Your task to perform on an android device: Open calendar and show me the first week of next month Image 0: 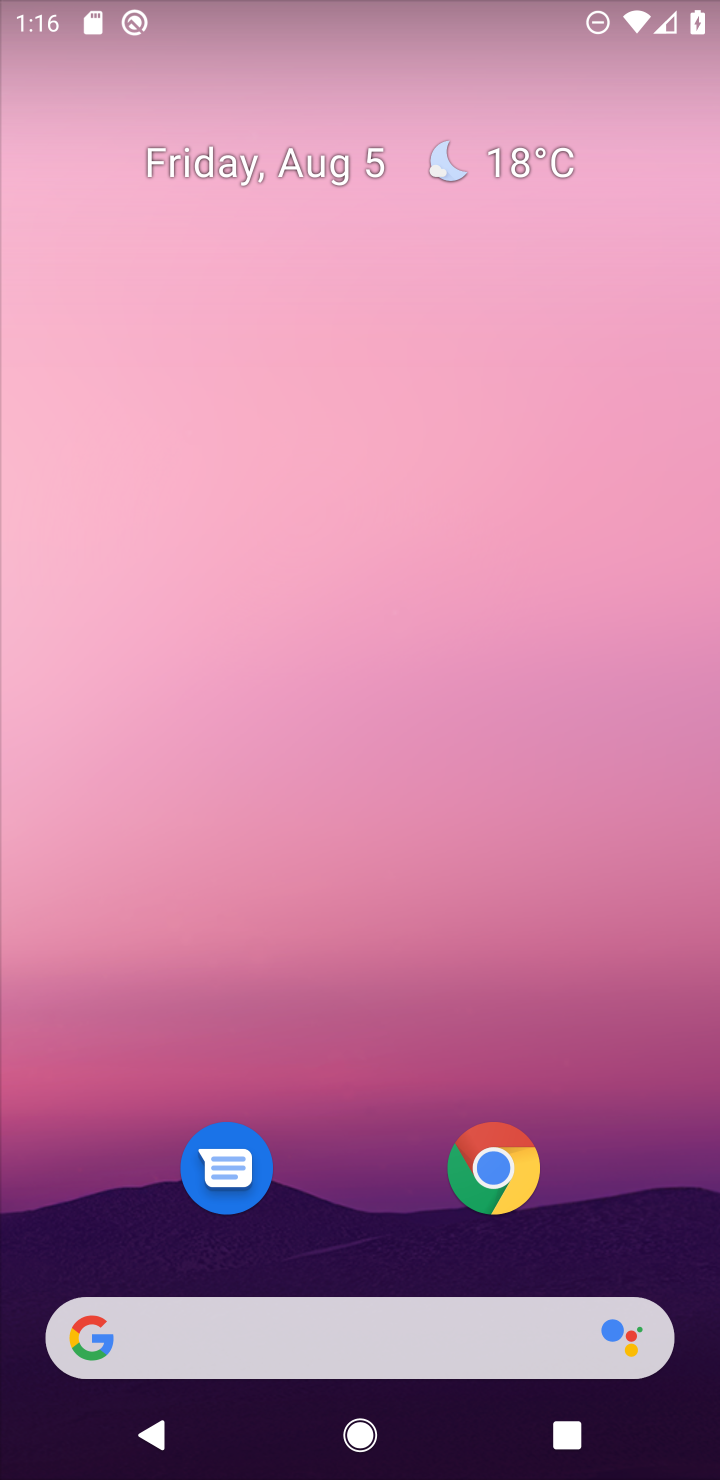
Step 0: drag from (295, 1012) to (343, 208)
Your task to perform on an android device: Open calendar and show me the first week of next month Image 1: 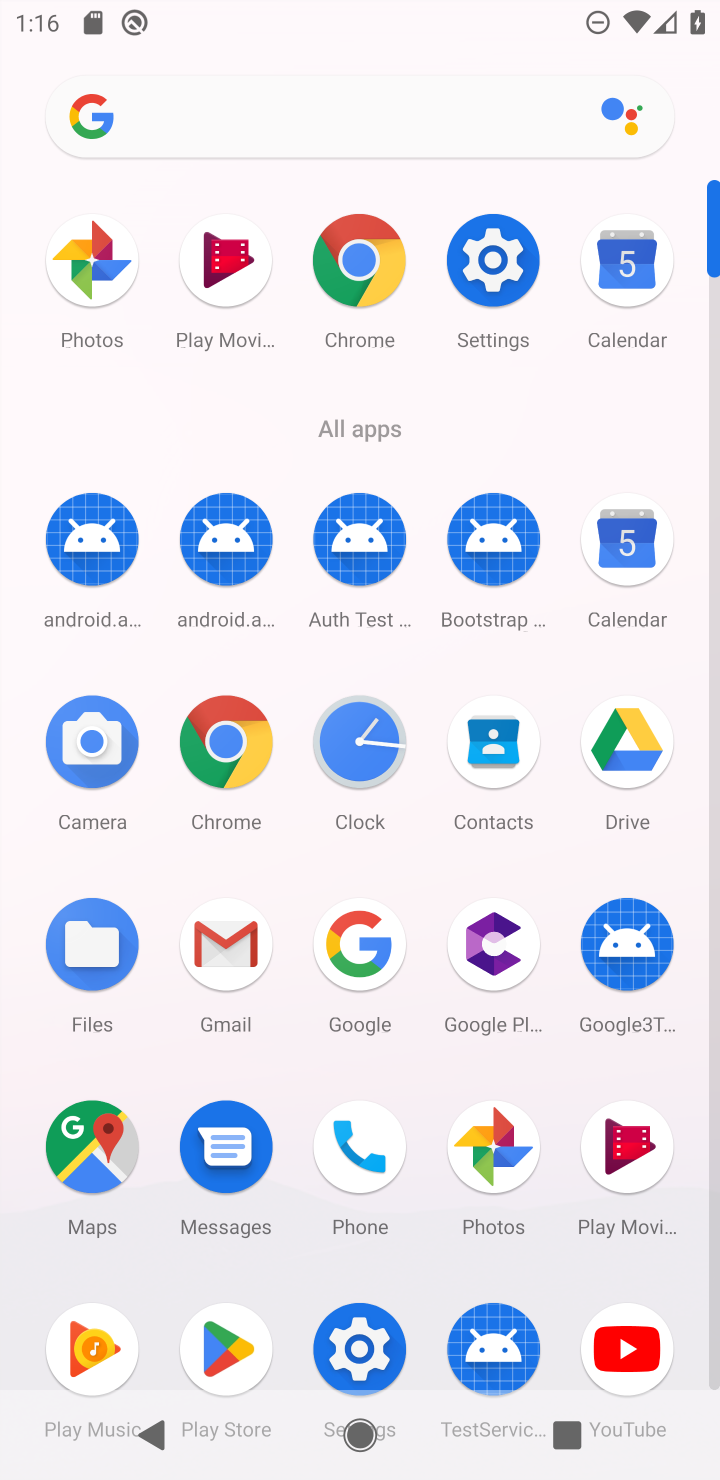
Step 1: click (635, 569)
Your task to perform on an android device: Open calendar and show me the first week of next month Image 2: 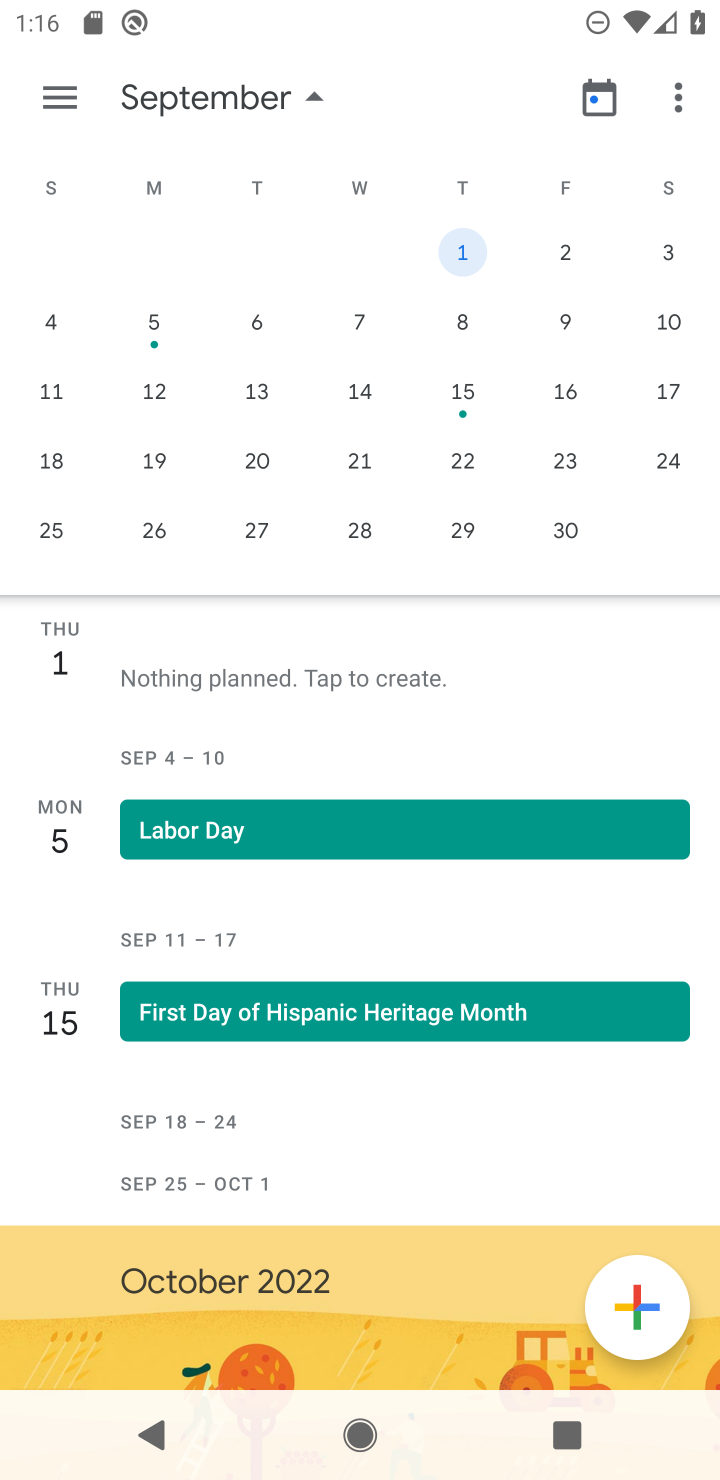
Step 2: click (474, 251)
Your task to perform on an android device: Open calendar and show me the first week of next month Image 3: 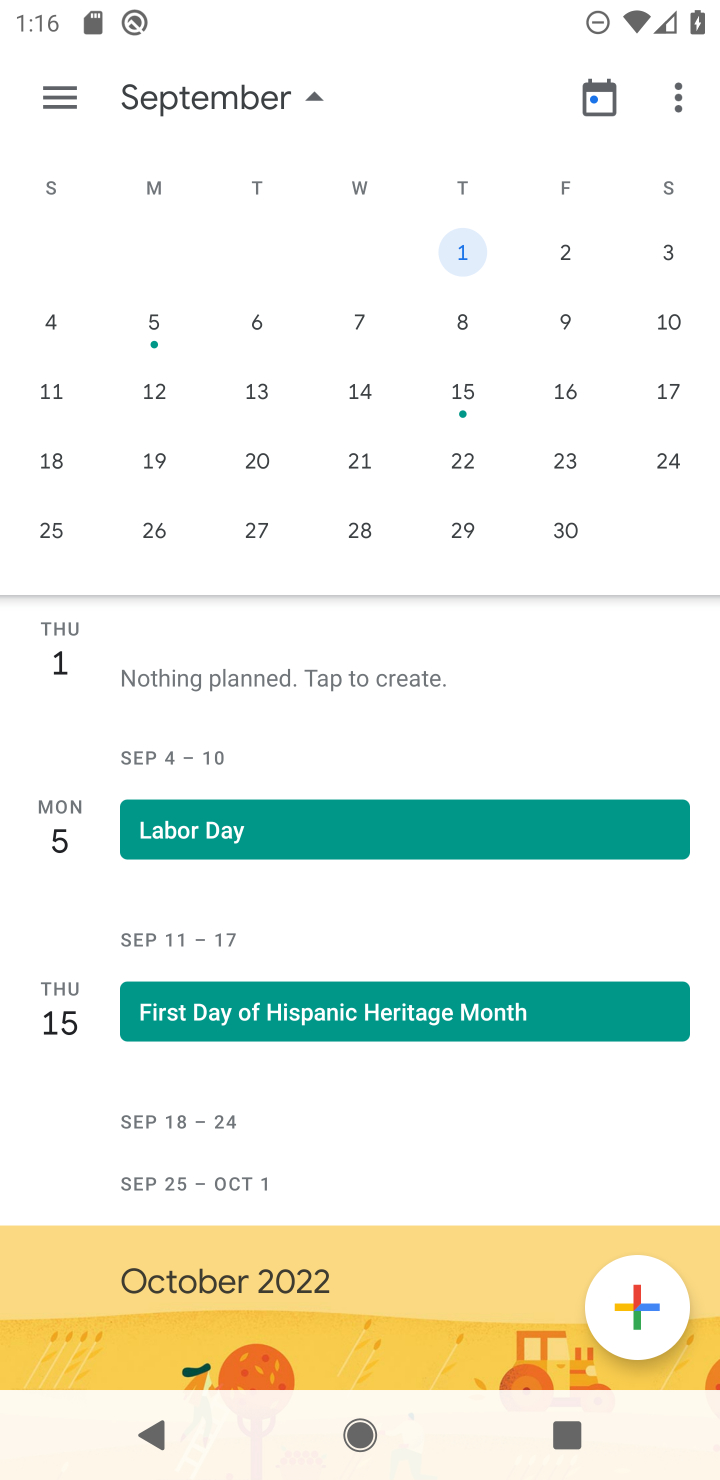
Step 3: task complete